Your task to perform on an android device: Go to battery settings Image 0: 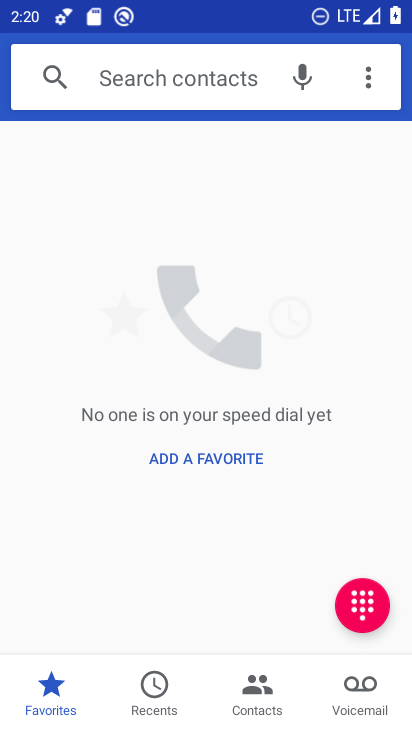
Step 0: press home button
Your task to perform on an android device: Go to battery settings Image 1: 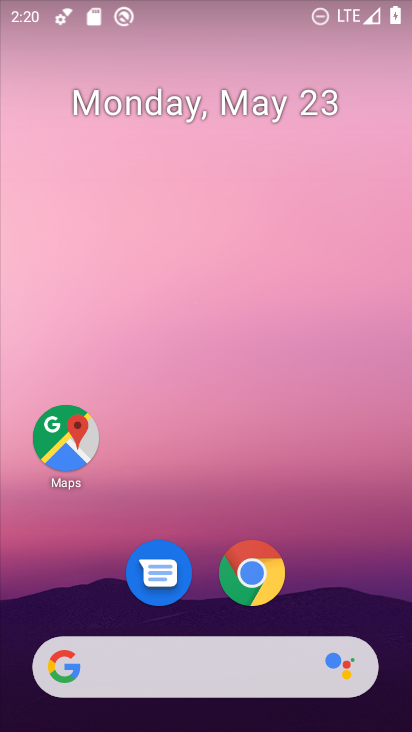
Step 1: drag from (355, 550) to (275, 122)
Your task to perform on an android device: Go to battery settings Image 2: 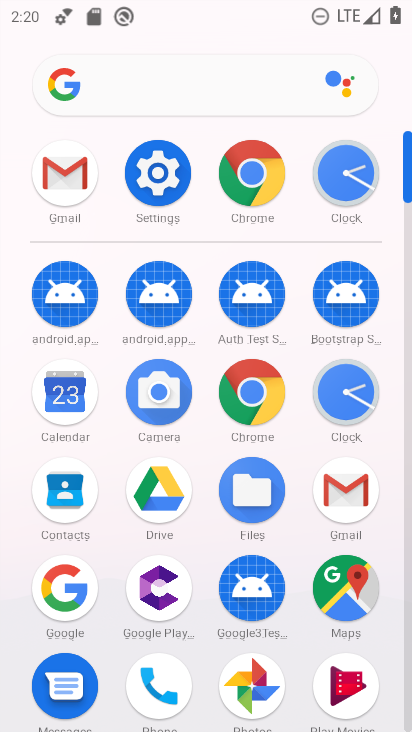
Step 2: click (169, 164)
Your task to perform on an android device: Go to battery settings Image 3: 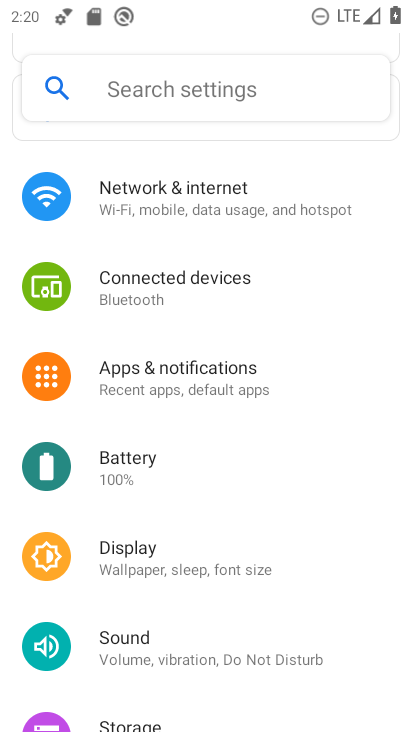
Step 3: click (212, 470)
Your task to perform on an android device: Go to battery settings Image 4: 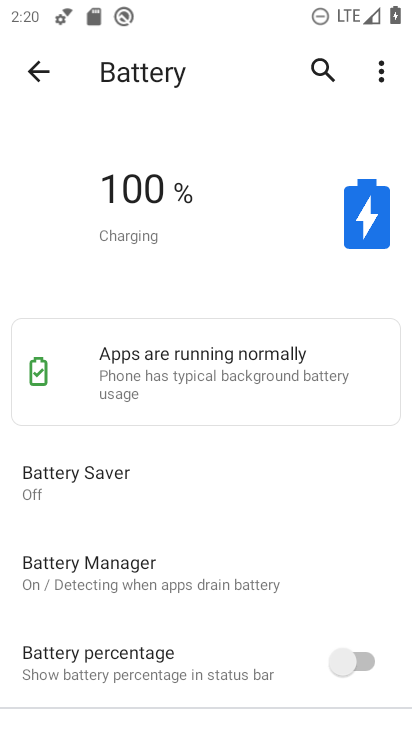
Step 4: task complete